Your task to perform on an android device: See recent photos Image 0: 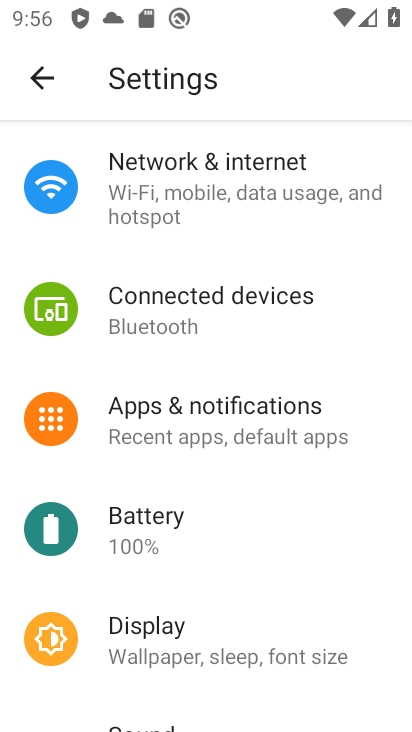
Step 0: press back button
Your task to perform on an android device: See recent photos Image 1: 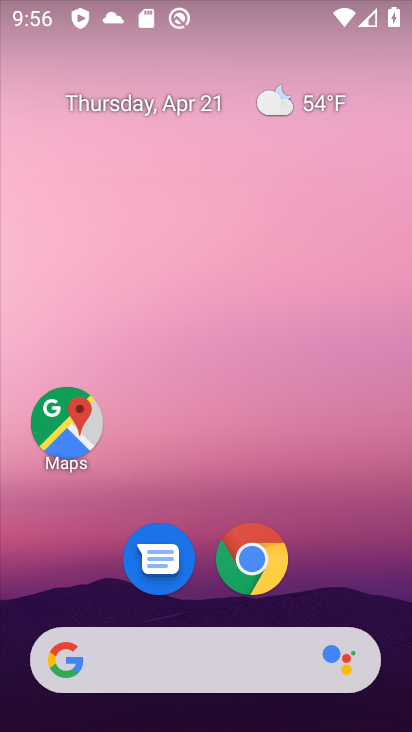
Step 1: drag from (190, 580) to (319, 56)
Your task to perform on an android device: See recent photos Image 2: 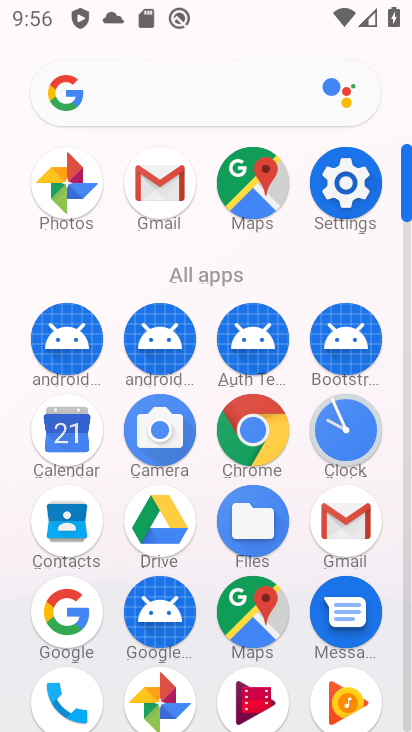
Step 2: click (161, 690)
Your task to perform on an android device: See recent photos Image 3: 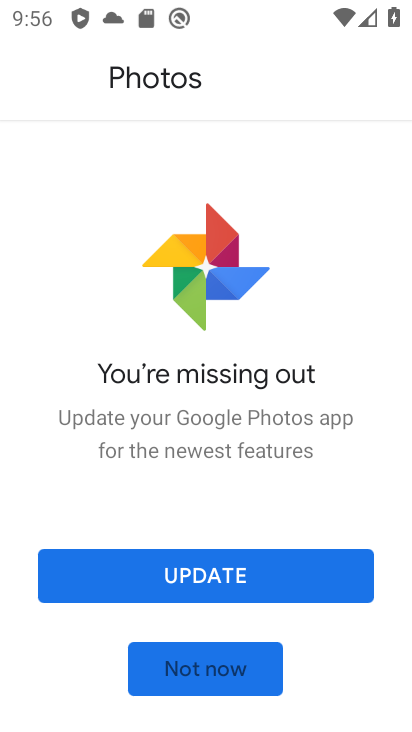
Step 3: click (198, 664)
Your task to perform on an android device: See recent photos Image 4: 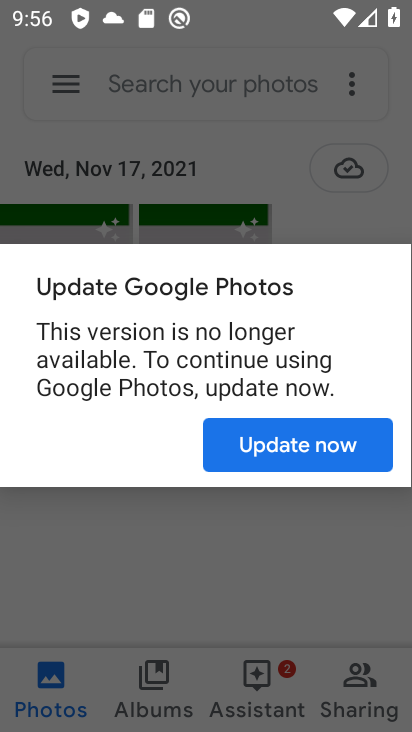
Step 4: click (293, 443)
Your task to perform on an android device: See recent photos Image 5: 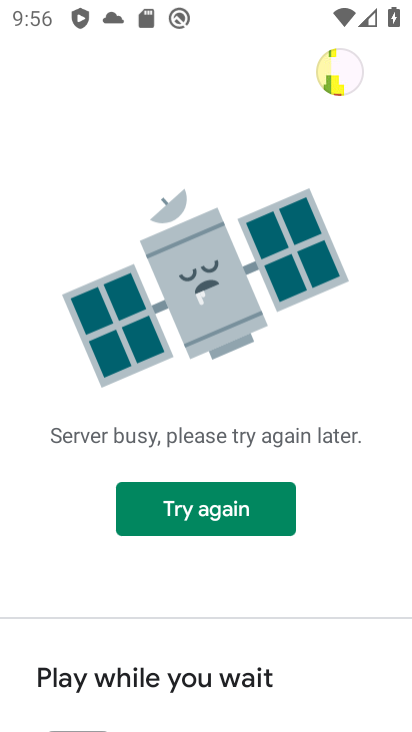
Step 5: press back button
Your task to perform on an android device: See recent photos Image 6: 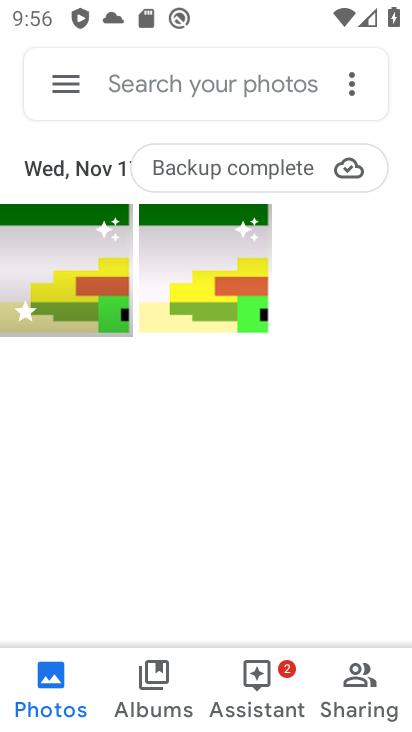
Step 6: click (47, 688)
Your task to perform on an android device: See recent photos Image 7: 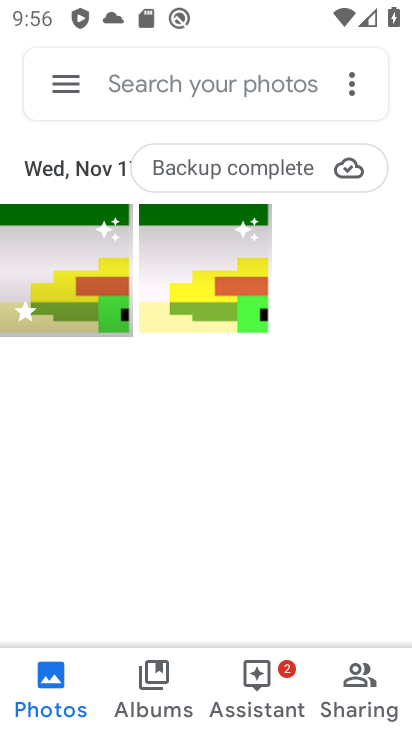
Step 7: task complete